Your task to perform on an android device: turn on wifi Image 0: 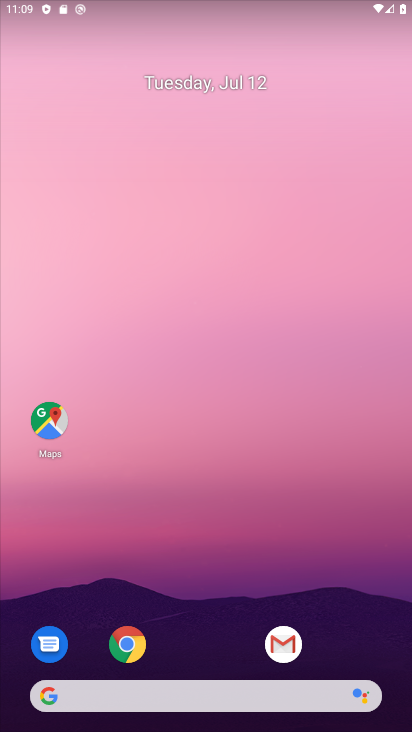
Step 0: drag from (281, 703) to (231, 236)
Your task to perform on an android device: turn on wifi Image 1: 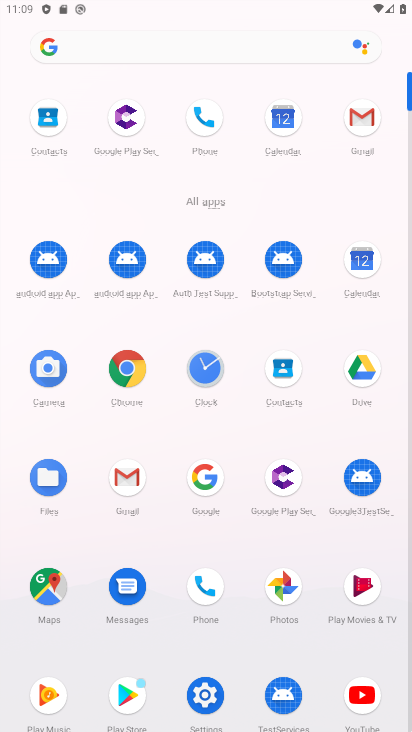
Step 1: click (209, 687)
Your task to perform on an android device: turn on wifi Image 2: 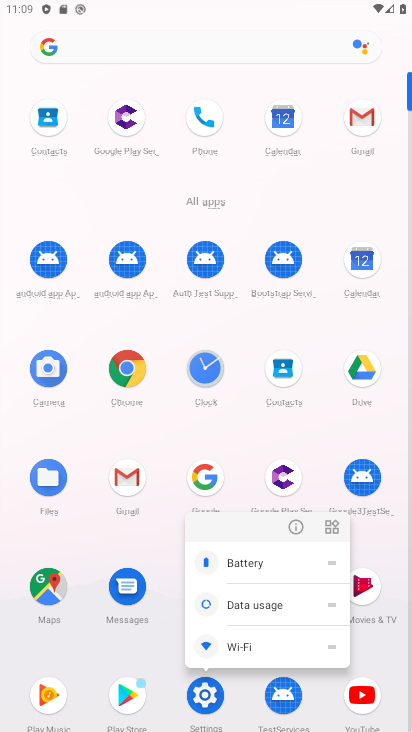
Step 2: click (209, 689)
Your task to perform on an android device: turn on wifi Image 3: 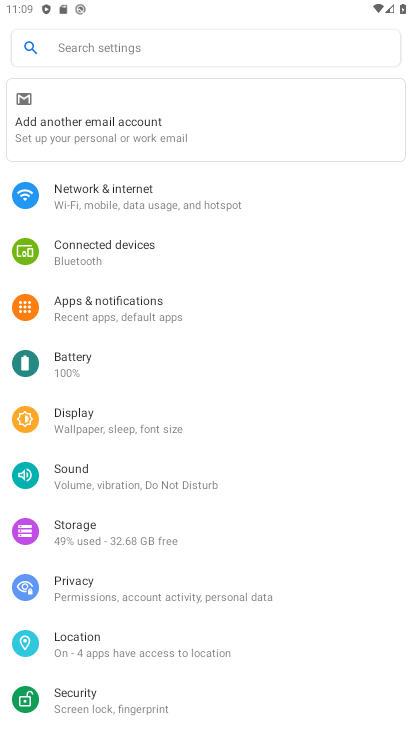
Step 3: click (106, 198)
Your task to perform on an android device: turn on wifi Image 4: 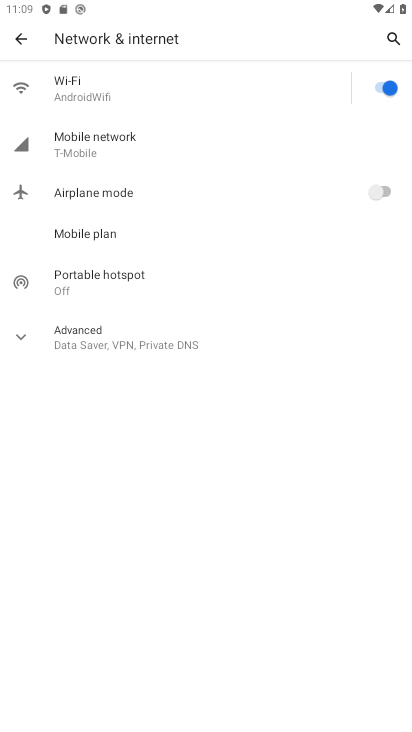
Step 4: click (176, 83)
Your task to perform on an android device: turn on wifi Image 5: 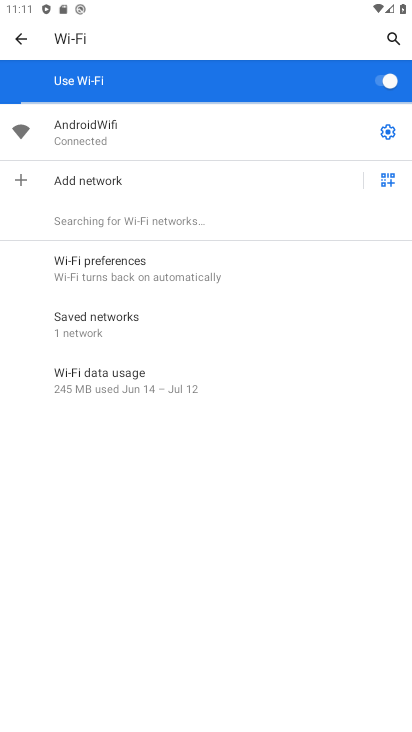
Step 5: task complete